Your task to perform on an android device: allow cookies in the chrome app Image 0: 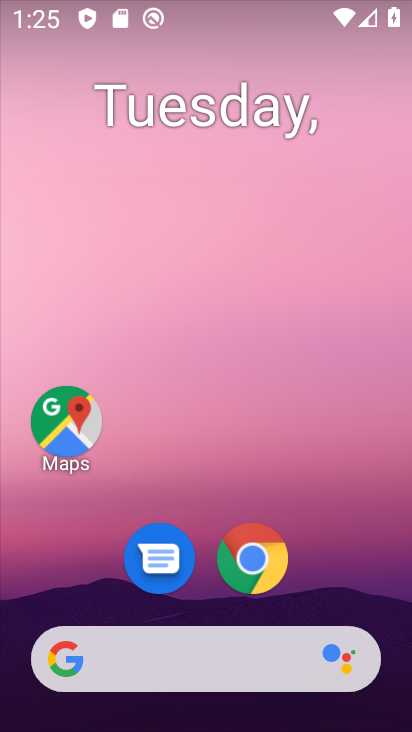
Step 0: click (260, 549)
Your task to perform on an android device: allow cookies in the chrome app Image 1: 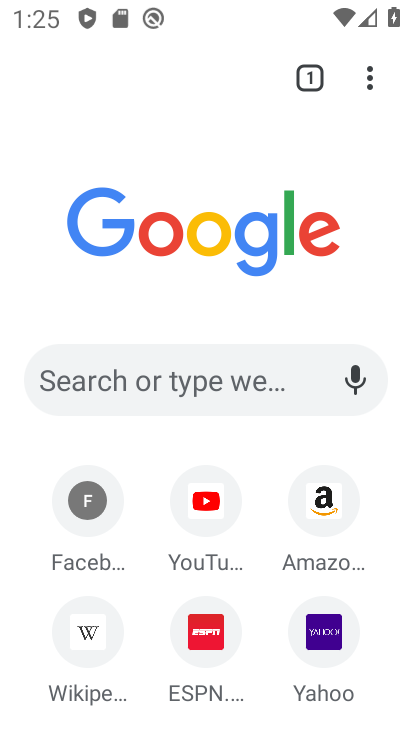
Step 1: drag from (374, 73) to (147, 607)
Your task to perform on an android device: allow cookies in the chrome app Image 2: 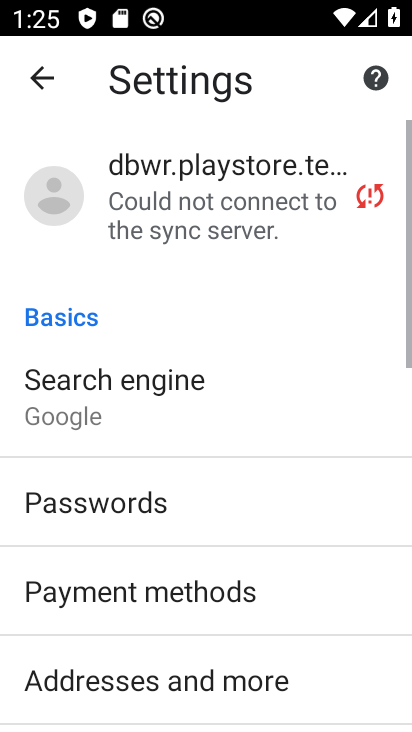
Step 2: drag from (139, 604) to (299, 27)
Your task to perform on an android device: allow cookies in the chrome app Image 3: 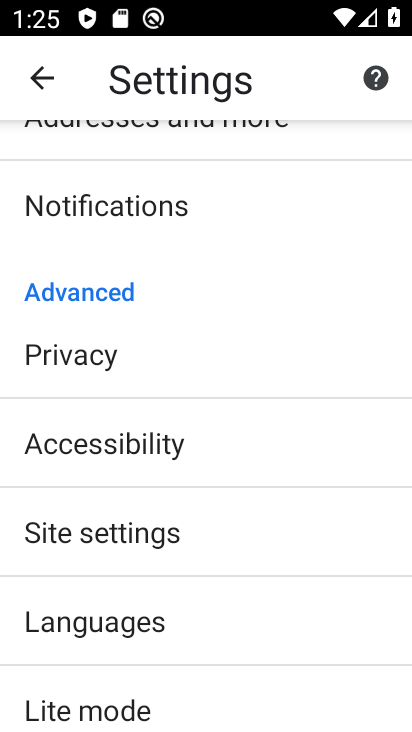
Step 3: click (64, 518)
Your task to perform on an android device: allow cookies in the chrome app Image 4: 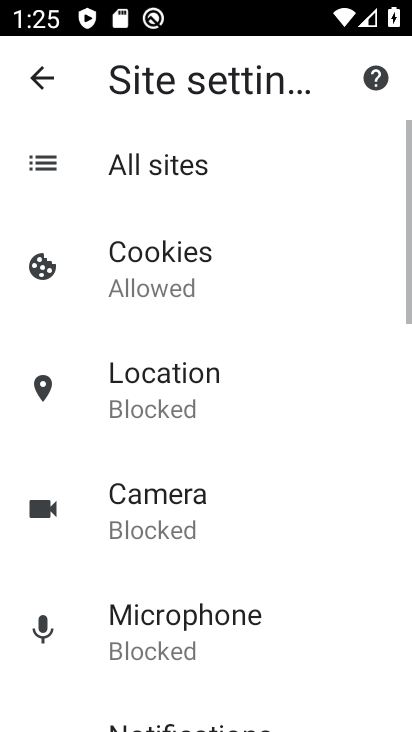
Step 4: click (155, 276)
Your task to perform on an android device: allow cookies in the chrome app Image 5: 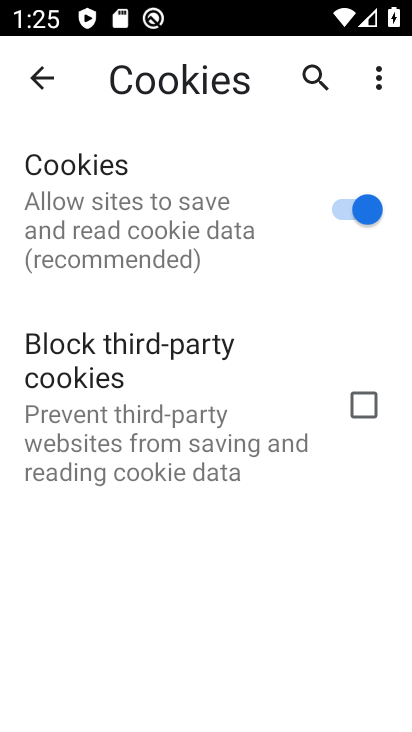
Step 5: task complete